Your task to perform on an android device: What's the weather going to be this weekend? Image 0: 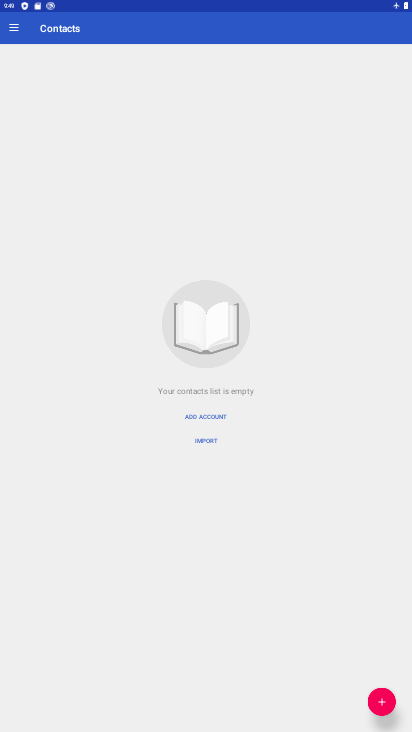
Step 0: press home button
Your task to perform on an android device: What's the weather going to be this weekend? Image 1: 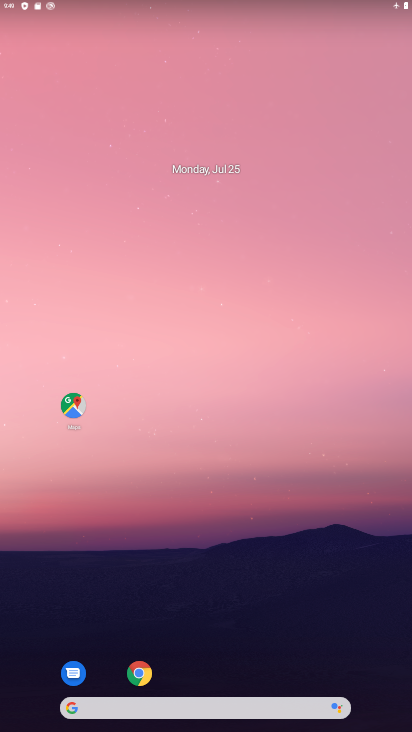
Step 1: drag from (306, 659) to (340, 43)
Your task to perform on an android device: What's the weather going to be this weekend? Image 2: 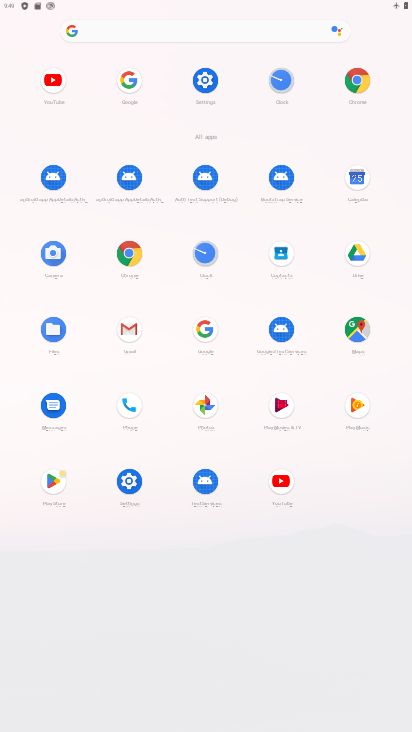
Step 2: click (351, 323)
Your task to perform on an android device: What's the weather going to be this weekend? Image 3: 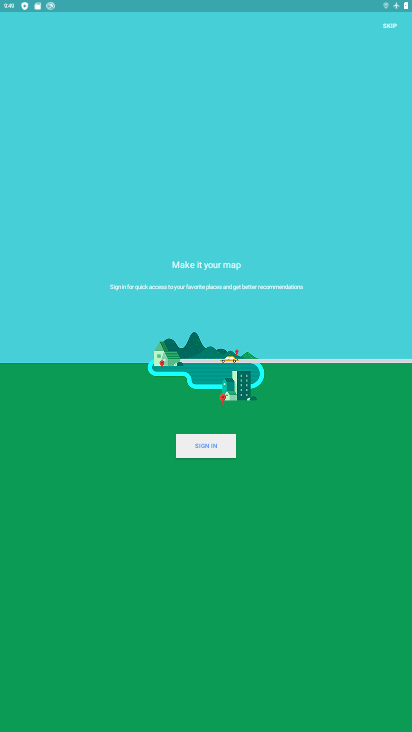
Step 3: task complete